Your task to perform on an android device: Open Youtube and go to "Your channel" Image 0: 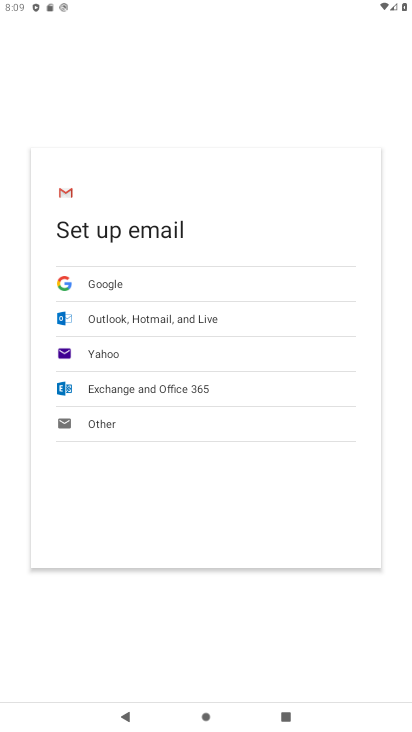
Step 0: press home button
Your task to perform on an android device: Open Youtube and go to "Your channel" Image 1: 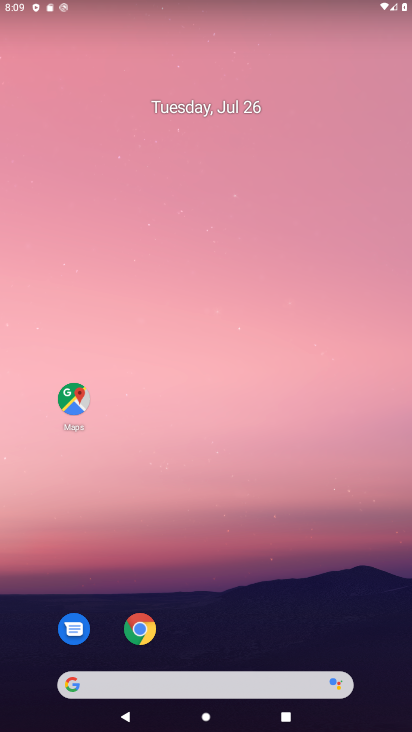
Step 1: drag from (245, 640) to (190, 119)
Your task to perform on an android device: Open Youtube and go to "Your channel" Image 2: 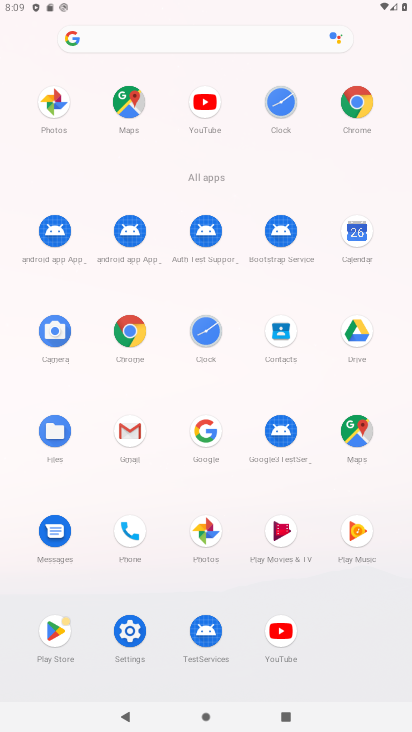
Step 2: click (282, 622)
Your task to perform on an android device: Open Youtube and go to "Your channel" Image 3: 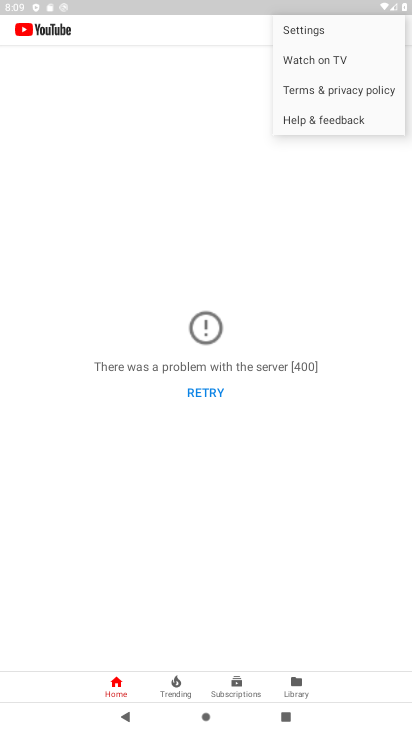
Step 3: task complete